Your task to perform on an android device: see sites visited before in the chrome app Image 0: 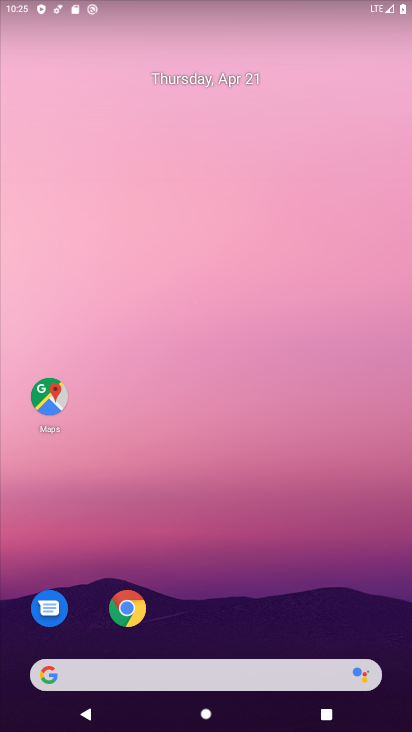
Step 0: click (128, 611)
Your task to perform on an android device: see sites visited before in the chrome app Image 1: 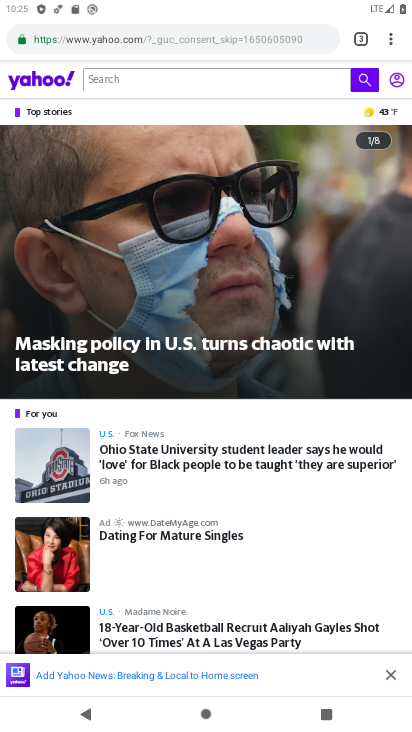
Step 1: drag from (388, 41) to (250, 185)
Your task to perform on an android device: see sites visited before in the chrome app Image 2: 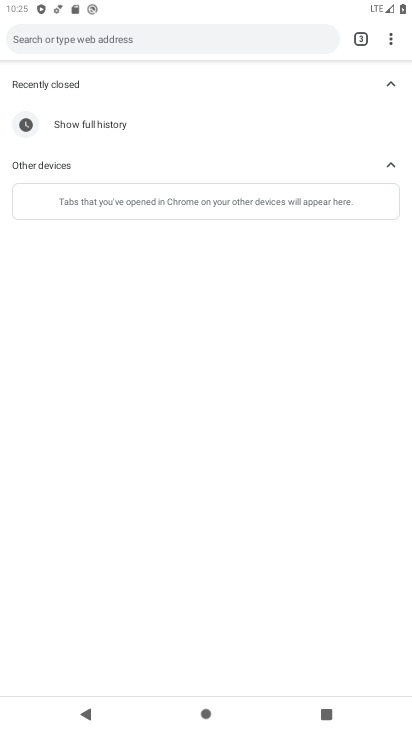
Step 2: click (43, 123)
Your task to perform on an android device: see sites visited before in the chrome app Image 3: 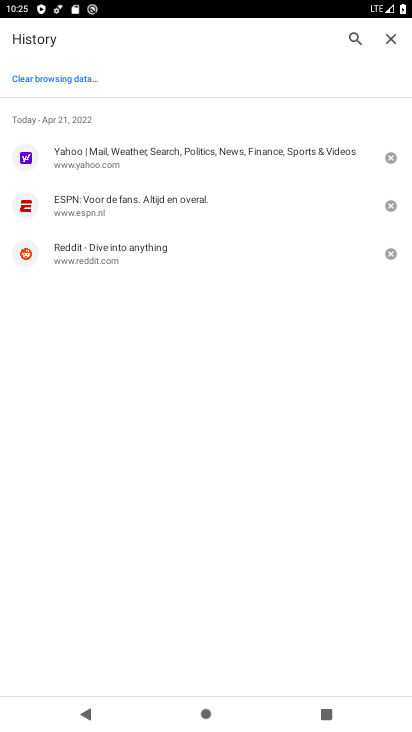
Step 3: task complete